Your task to perform on an android device: Go to eBay Image 0: 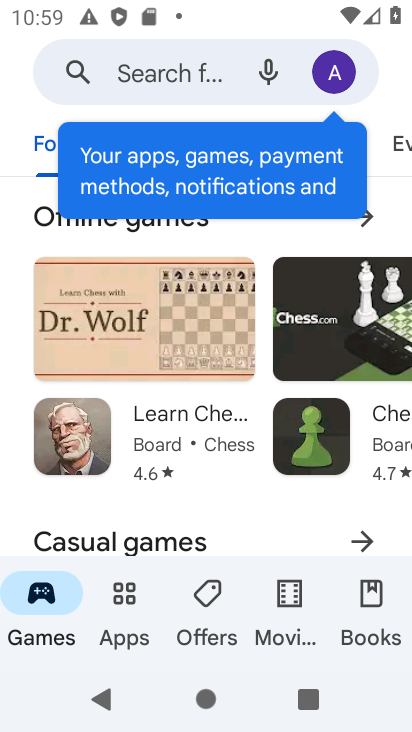
Step 0: press home button
Your task to perform on an android device: Go to eBay Image 1: 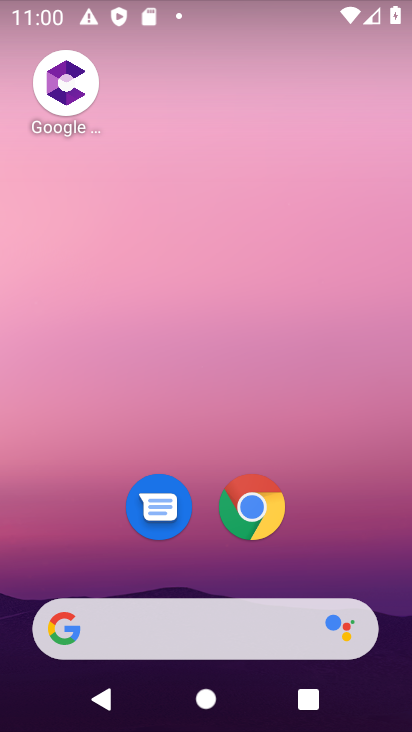
Step 1: click (277, 508)
Your task to perform on an android device: Go to eBay Image 2: 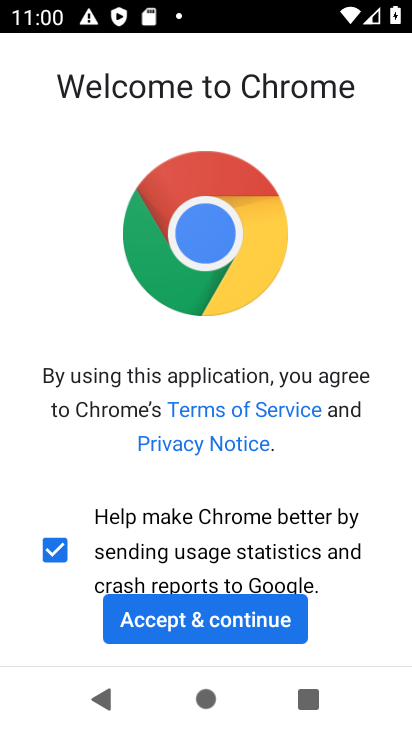
Step 2: click (197, 626)
Your task to perform on an android device: Go to eBay Image 3: 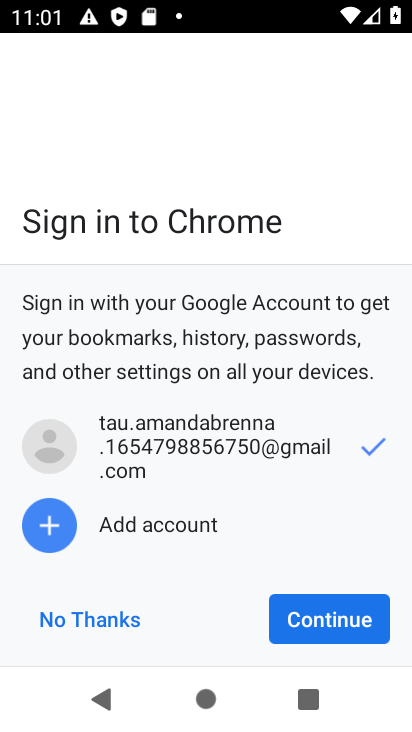
Step 3: click (306, 619)
Your task to perform on an android device: Go to eBay Image 4: 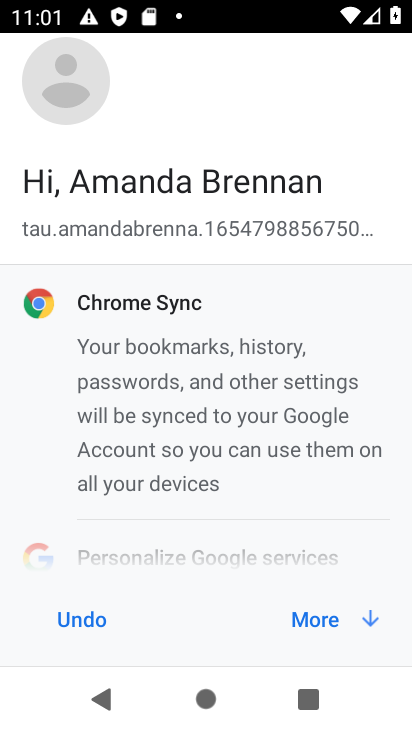
Step 4: click (306, 619)
Your task to perform on an android device: Go to eBay Image 5: 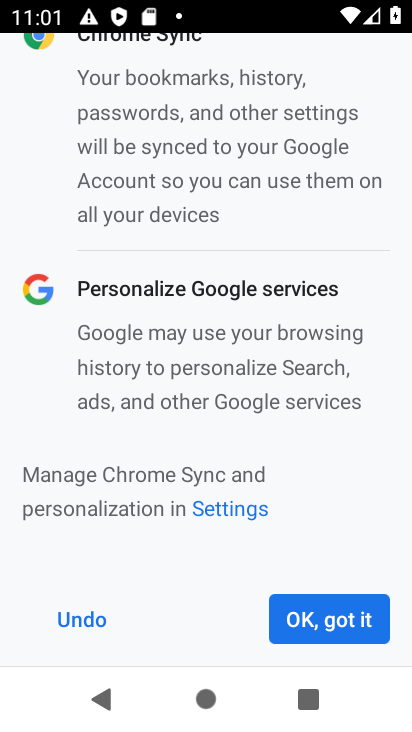
Step 5: click (306, 619)
Your task to perform on an android device: Go to eBay Image 6: 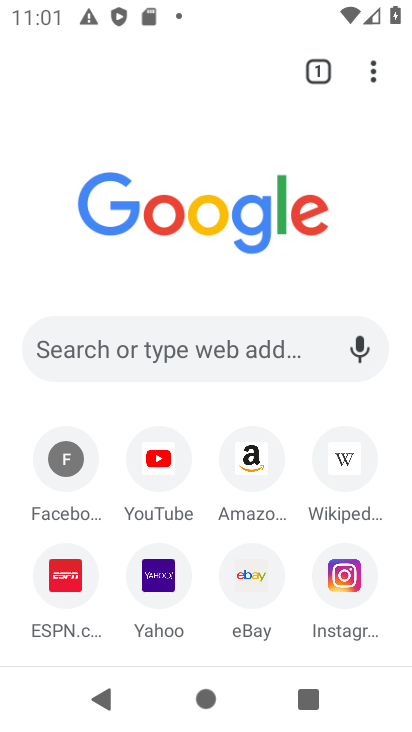
Step 6: click (261, 597)
Your task to perform on an android device: Go to eBay Image 7: 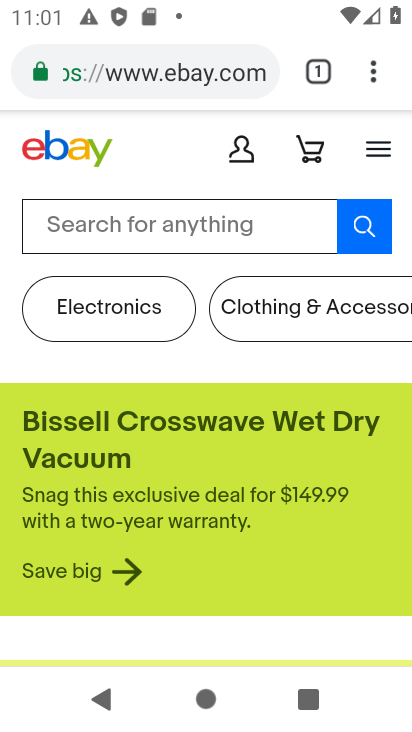
Step 7: task complete